Your task to perform on an android device: delete location history Image 0: 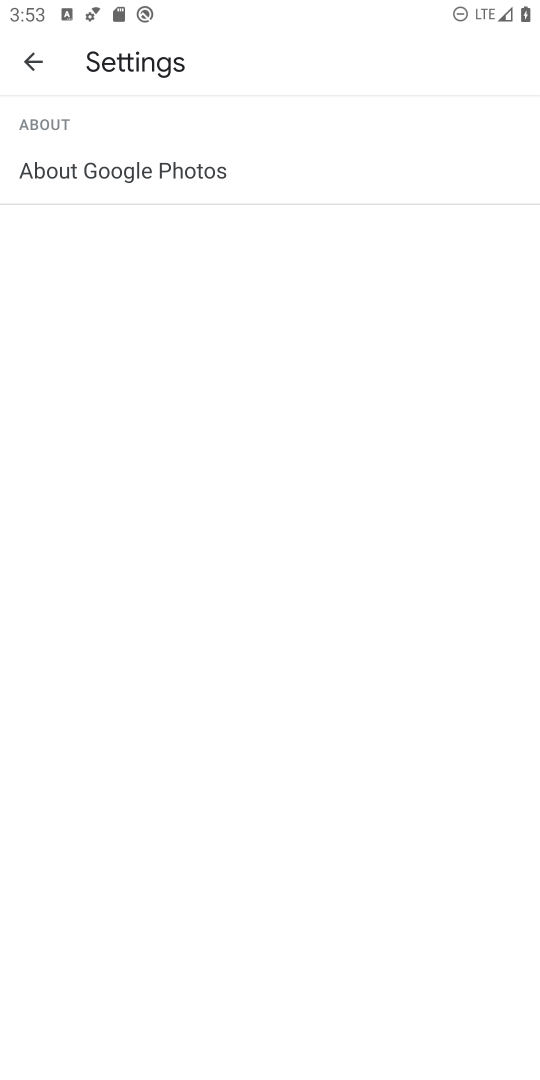
Step 0: press home button
Your task to perform on an android device: delete location history Image 1: 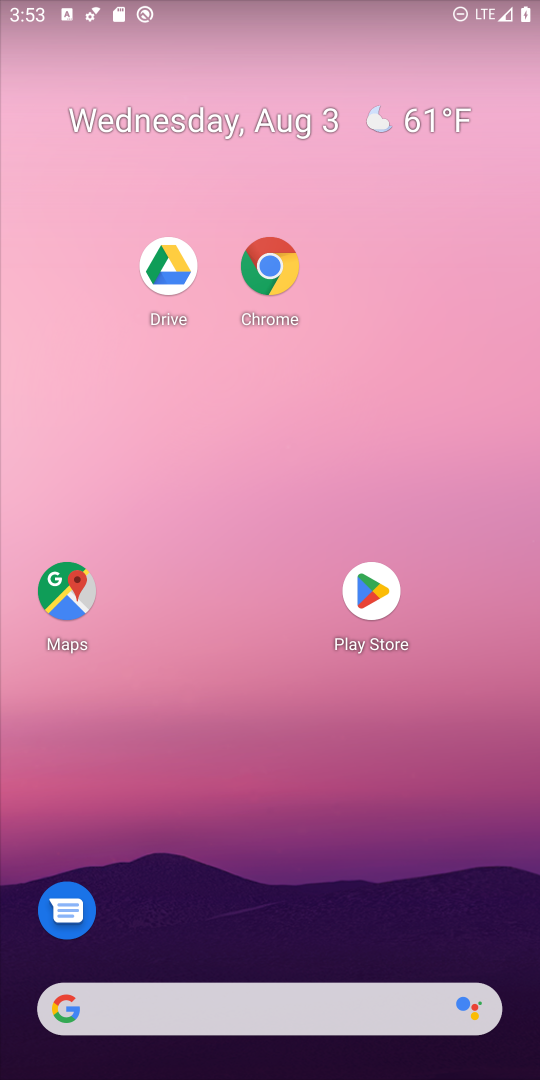
Step 1: drag from (178, 998) to (195, 0)
Your task to perform on an android device: delete location history Image 2: 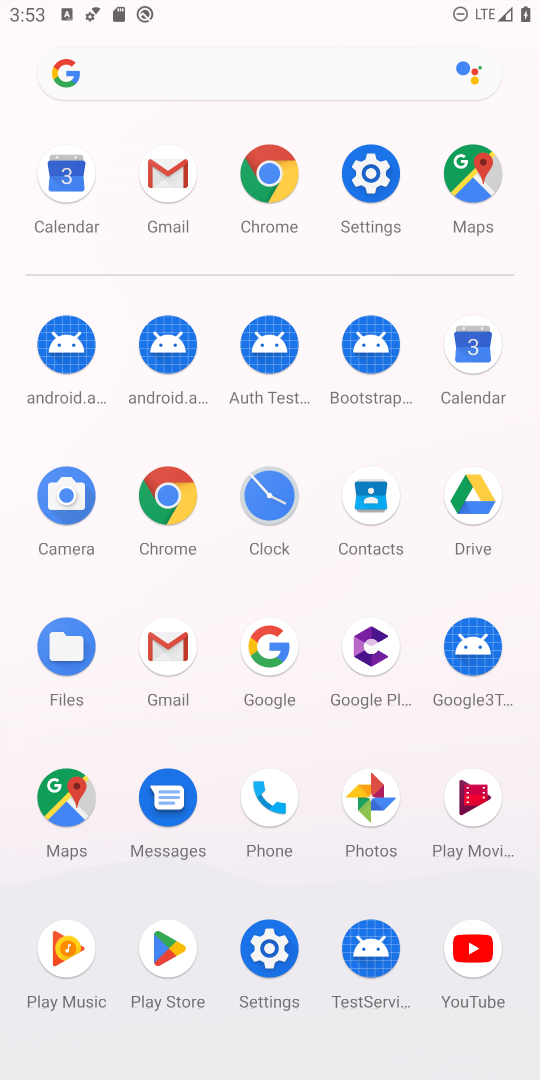
Step 2: click (85, 802)
Your task to perform on an android device: delete location history Image 3: 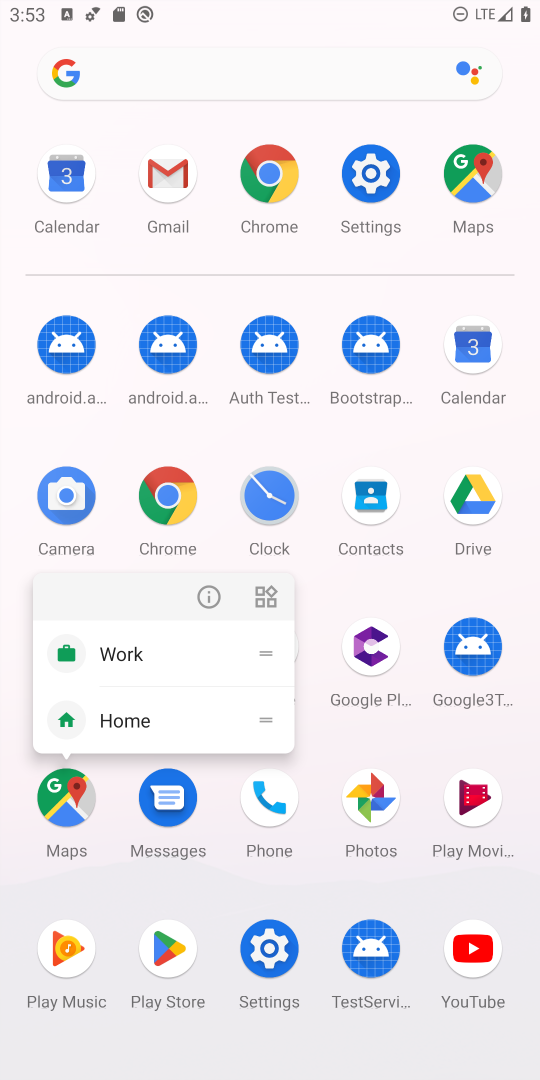
Step 3: click (44, 793)
Your task to perform on an android device: delete location history Image 4: 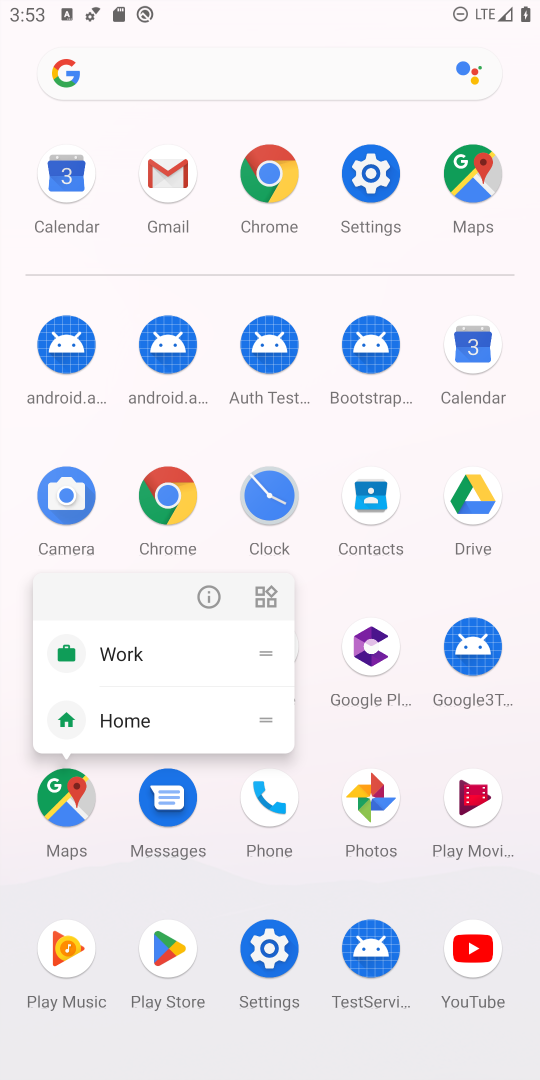
Step 4: click (56, 791)
Your task to perform on an android device: delete location history Image 5: 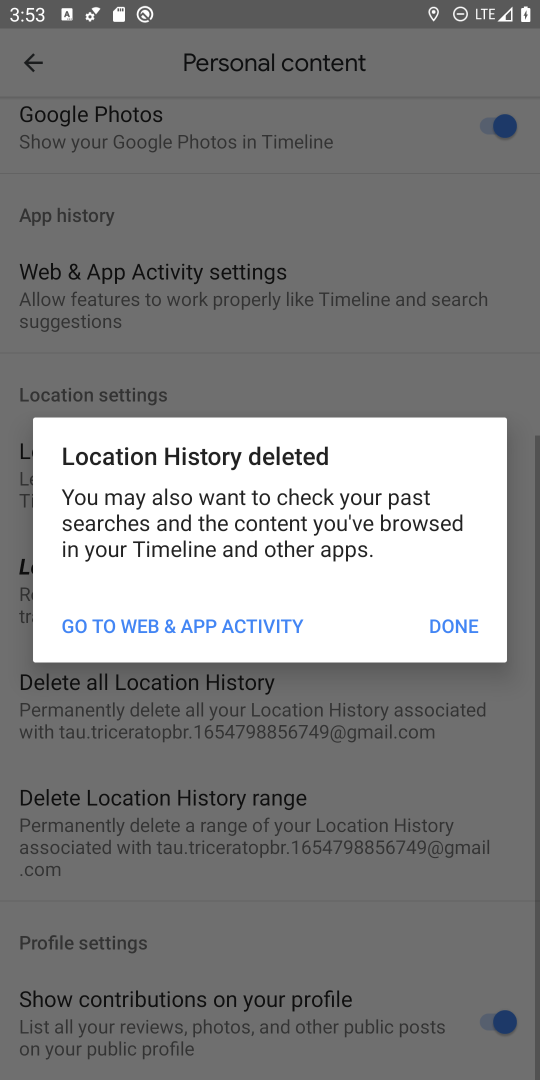
Step 5: click (454, 626)
Your task to perform on an android device: delete location history Image 6: 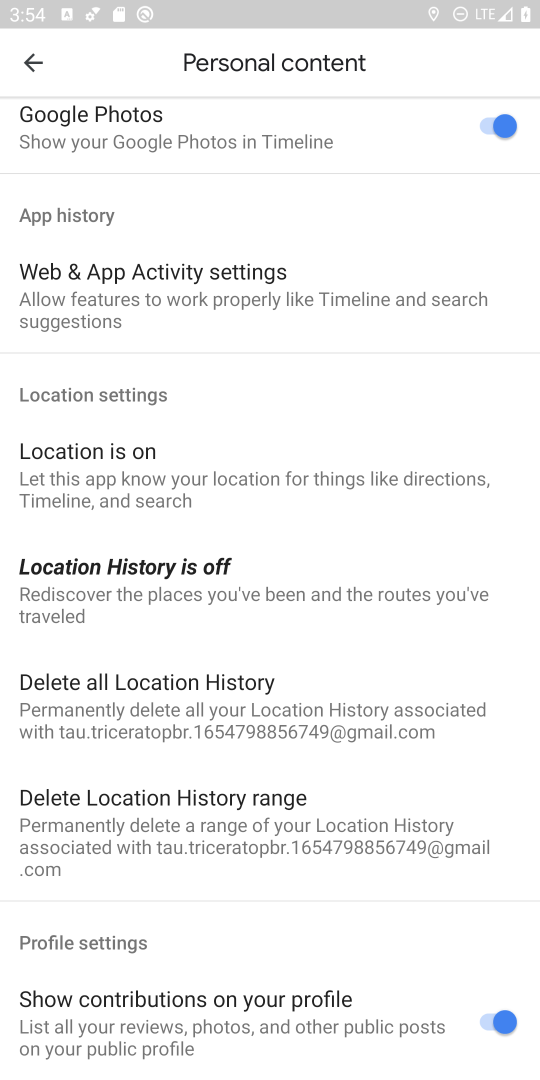
Step 6: click (217, 679)
Your task to perform on an android device: delete location history Image 7: 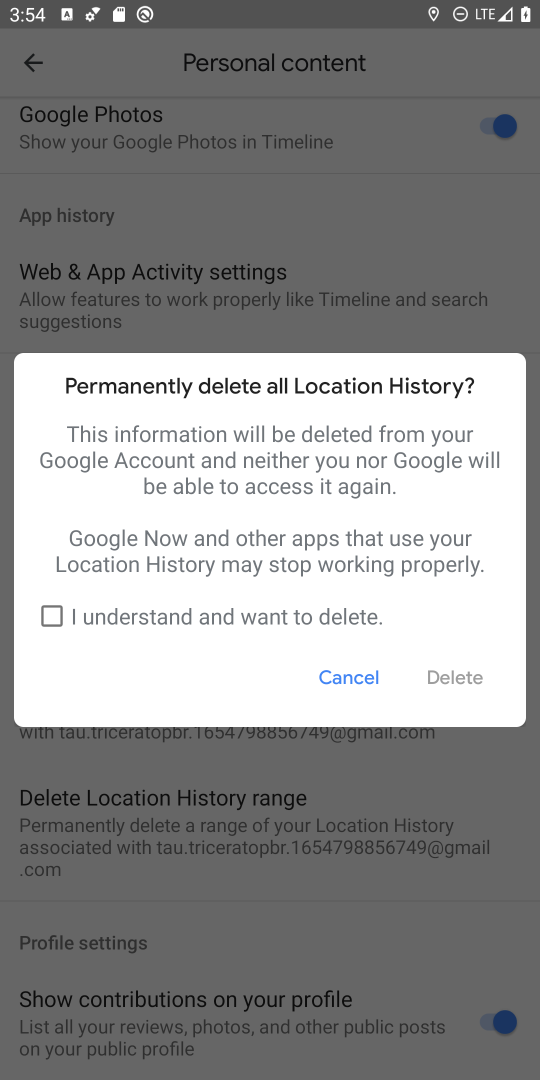
Step 7: click (52, 610)
Your task to perform on an android device: delete location history Image 8: 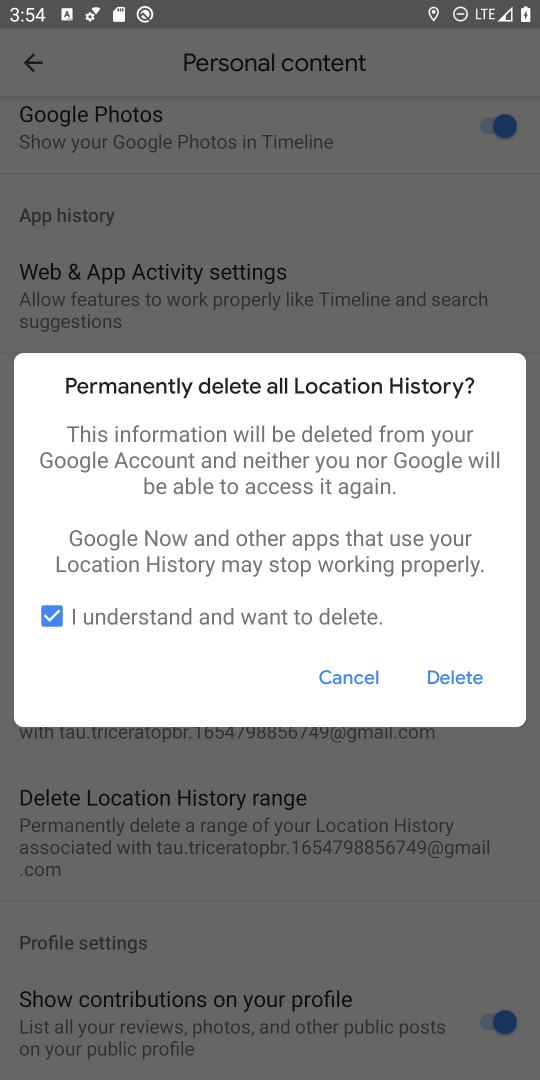
Step 8: click (470, 673)
Your task to perform on an android device: delete location history Image 9: 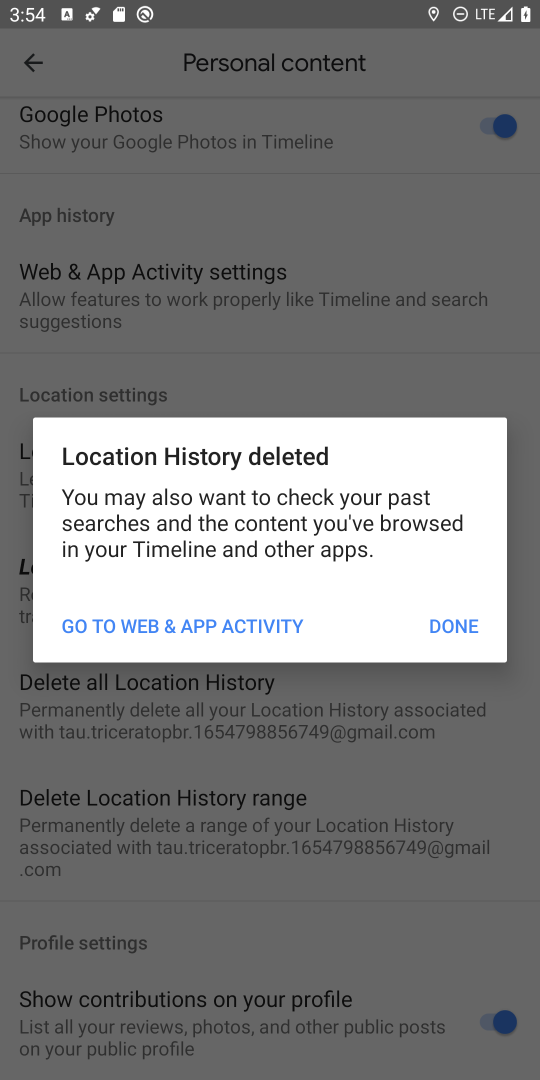
Step 9: click (462, 620)
Your task to perform on an android device: delete location history Image 10: 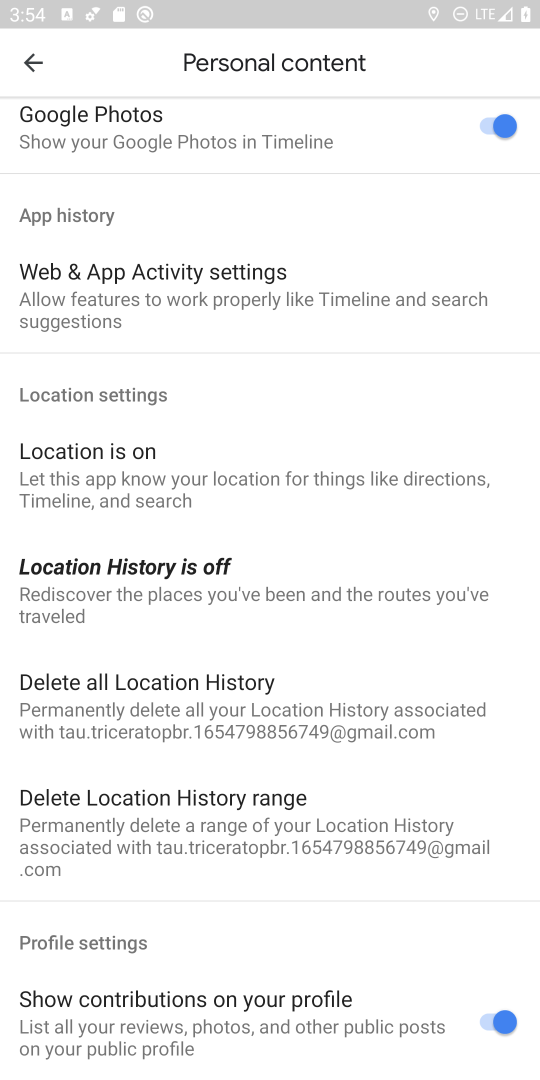
Step 10: task complete